Your task to perform on an android device: turn on airplane mode Image 0: 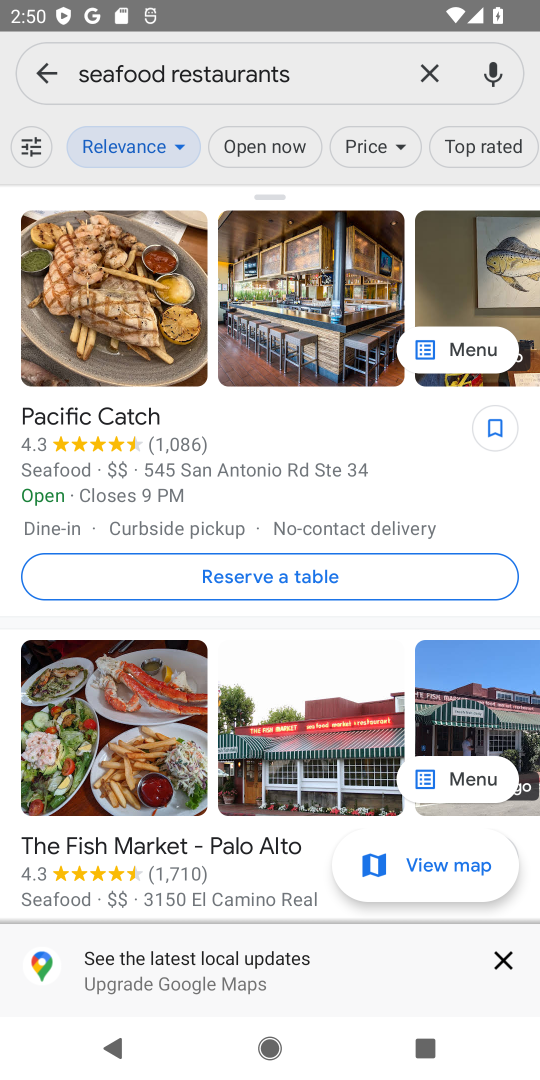
Step 0: press home button
Your task to perform on an android device: turn on airplane mode Image 1: 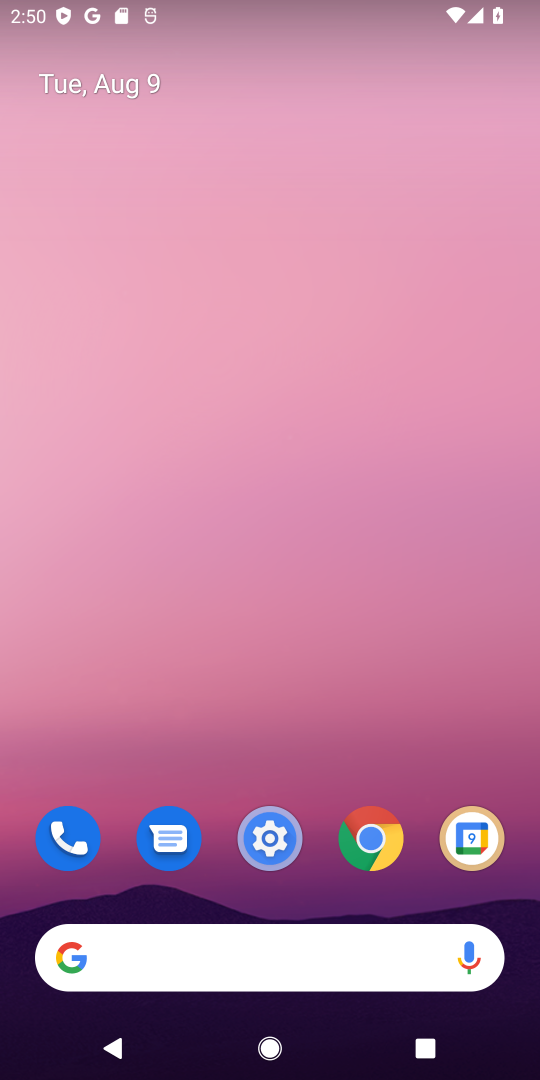
Step 1: drag from (329, 740) to (407, 197)
Your task to perform on an android device: turn on airplane mode Image 2: 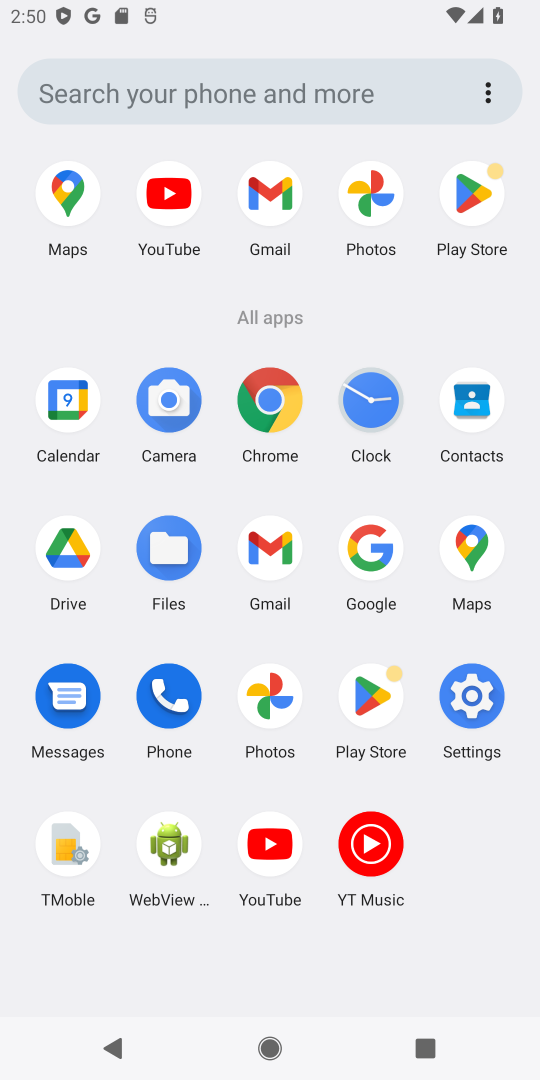
Step 2: click (485, 700)
Your task to perform on an android device: turn on airplane mode Image 3: 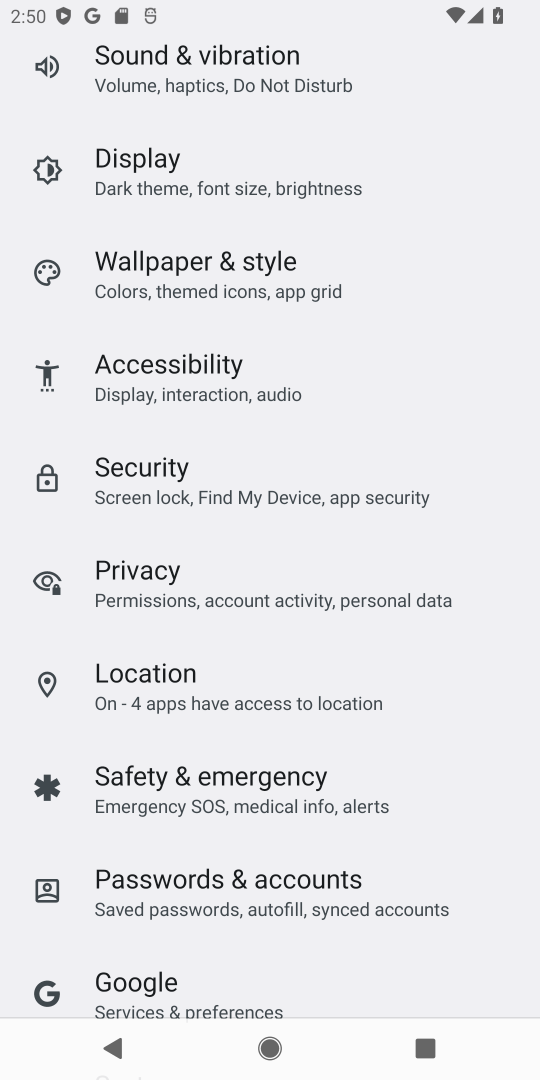
Step 3: drag from (259, 212) to (121, 823)
Your task to perform on an android device: turn on airplane mode Image 4: 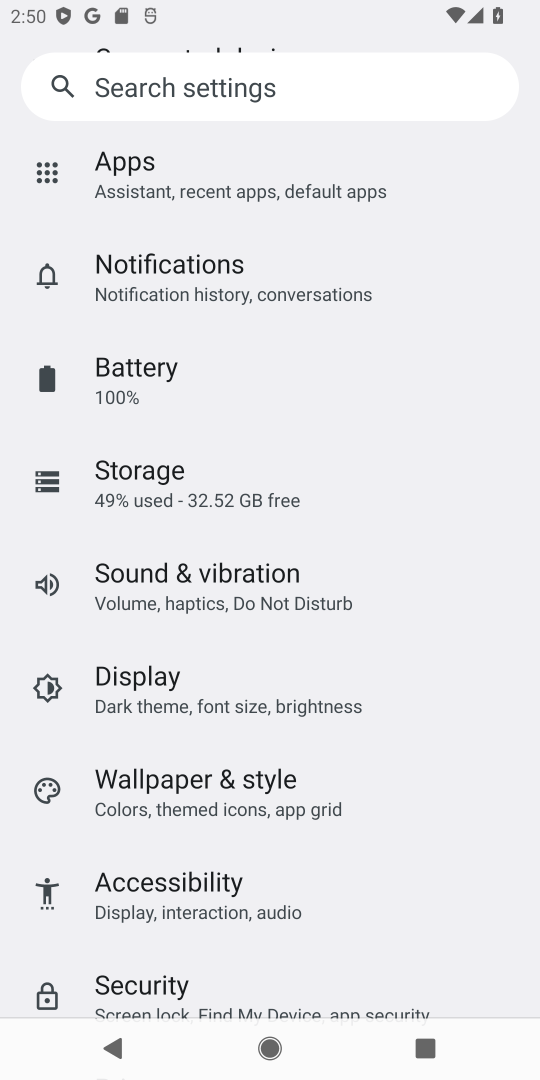
Step 4: drag from (373, 189) to (327, 792)
Your task to perform on an android device: turn on airplane mode Image 5: 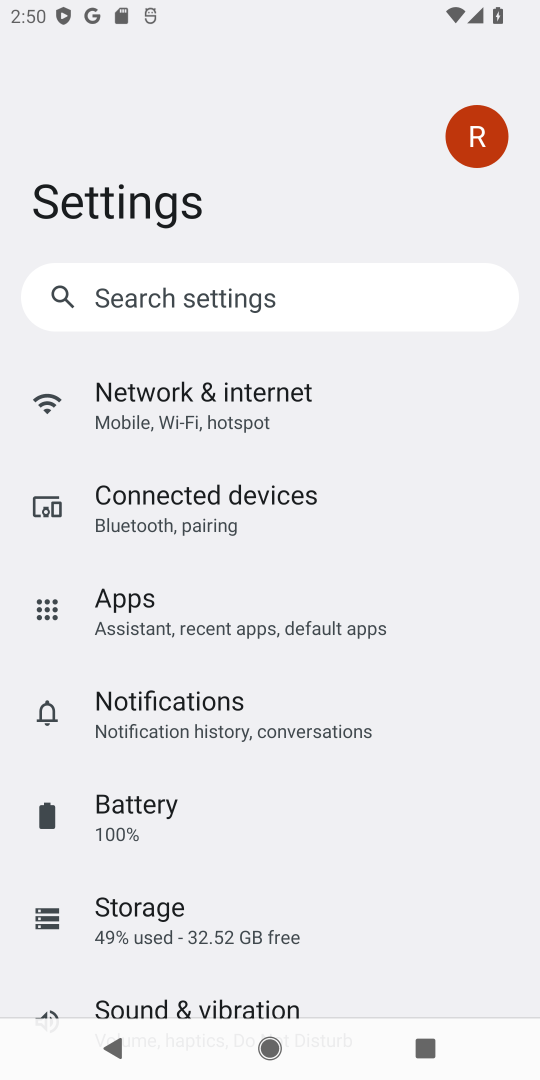
Step 5: click (241, 416)
Your task to perform on an android device: turn on airplane mode Image 6: 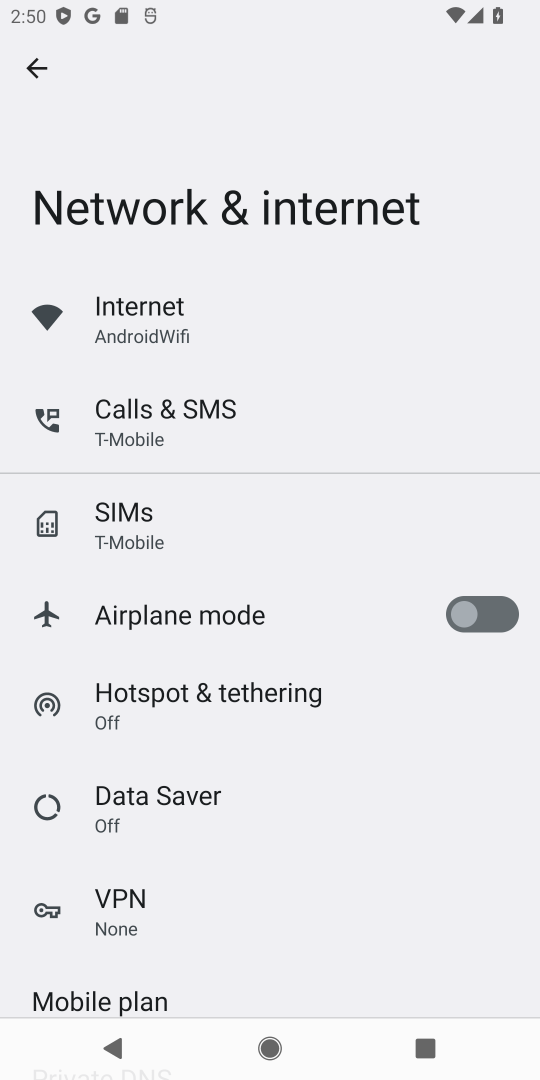
Step 6: click (473, 605)
Your task to perform on an android device: turn on airplane mode Image 7: 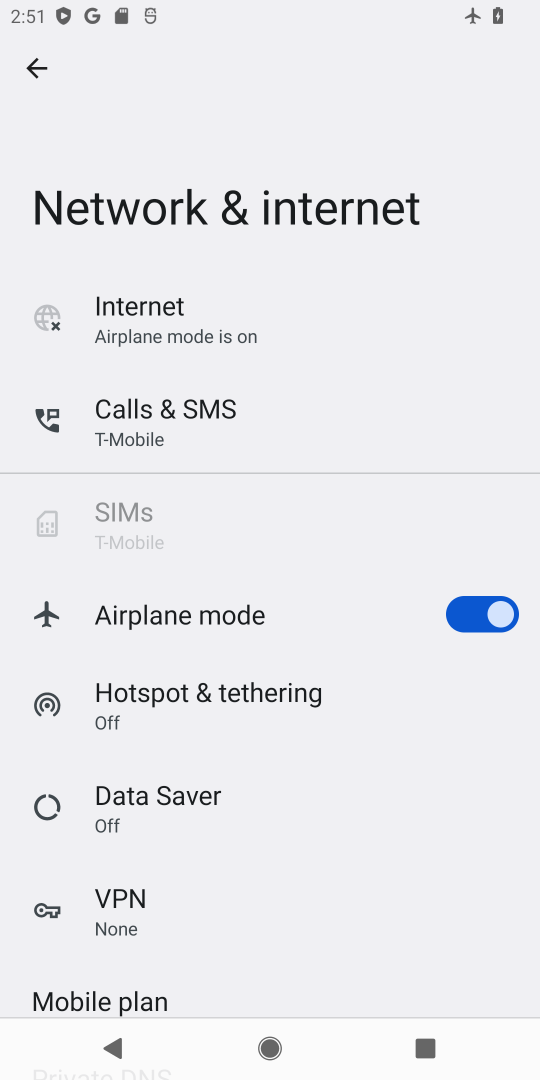
Step 7: task complete